Your task to perform on an android device: make emails show in primary in the gmail app Image 0: 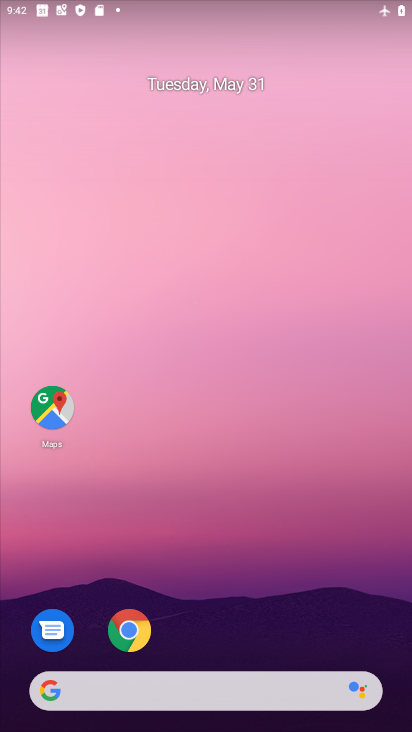
Step 0: drag from (204, 484) to (194, 225)
Your task to perform on an android device: make emails show in primary in the gmail app Image 1: 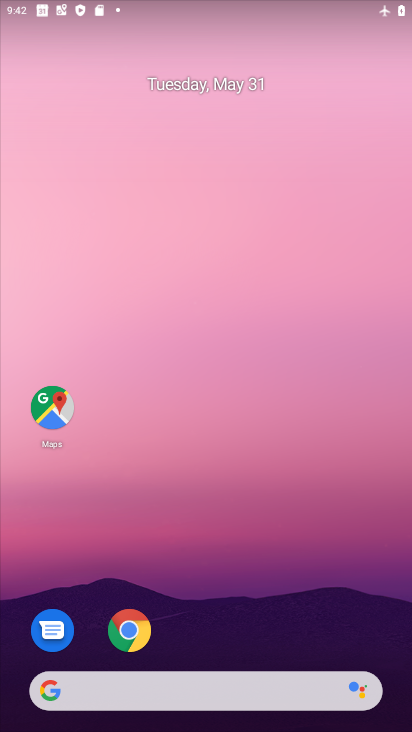
Step 1: drag from (192, 634) to (191, 250)
Your task to perform on an android device: make emails show in primary in the gmail app Image 2: 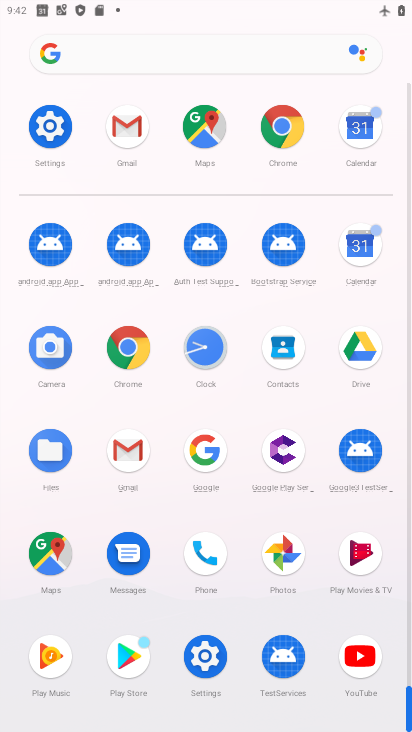
Step 2: click (136, 437)
Your task to perform on an android device: make emails show in primary in the gmail app Image 3: 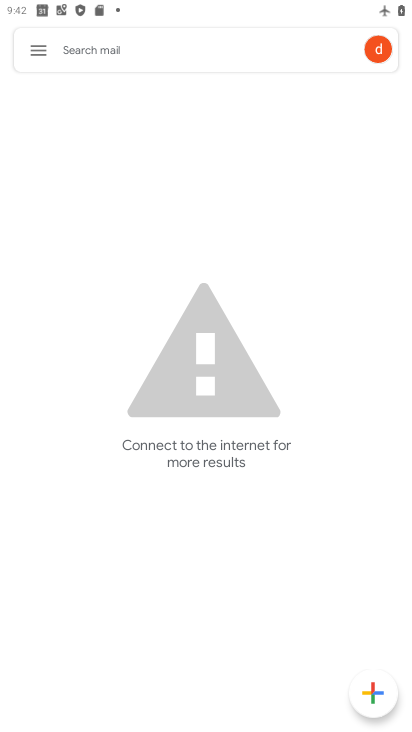
Step 3: click (33, 43)
Your task to perform on an android device: make emails show in primary in the gmail app Image 4: 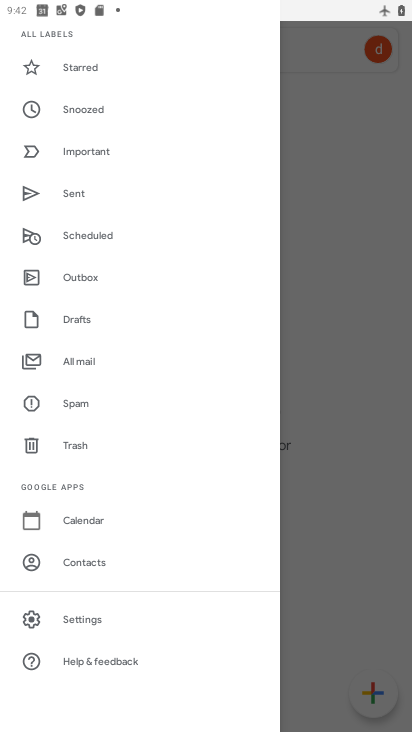
Step 4: click (99, 614)
Your task to perform on an android device: make emails show in primary in the gmail app Image 5: 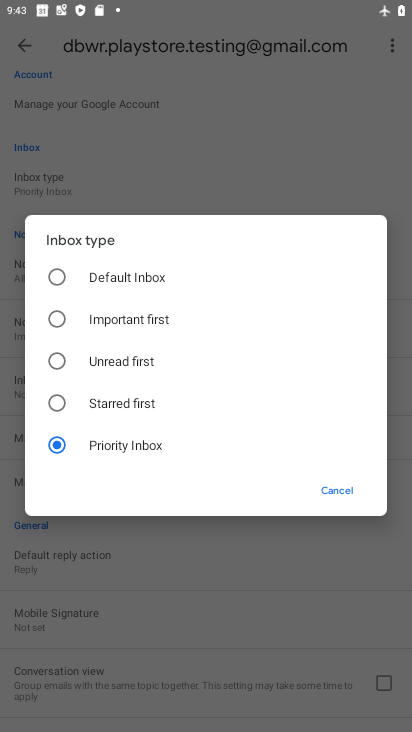
Step 5: click (350, 488)
Your task to perform on an android device: make emails show in primary in the gmail app Image 6: 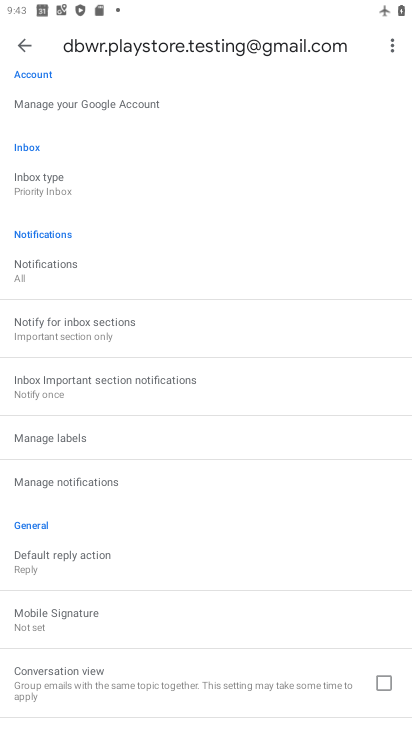
Step 6: task complete